Your task to perform on an android device: open app "NewsBreak: Local News & Alerts" (install if not already installed) Image 0: 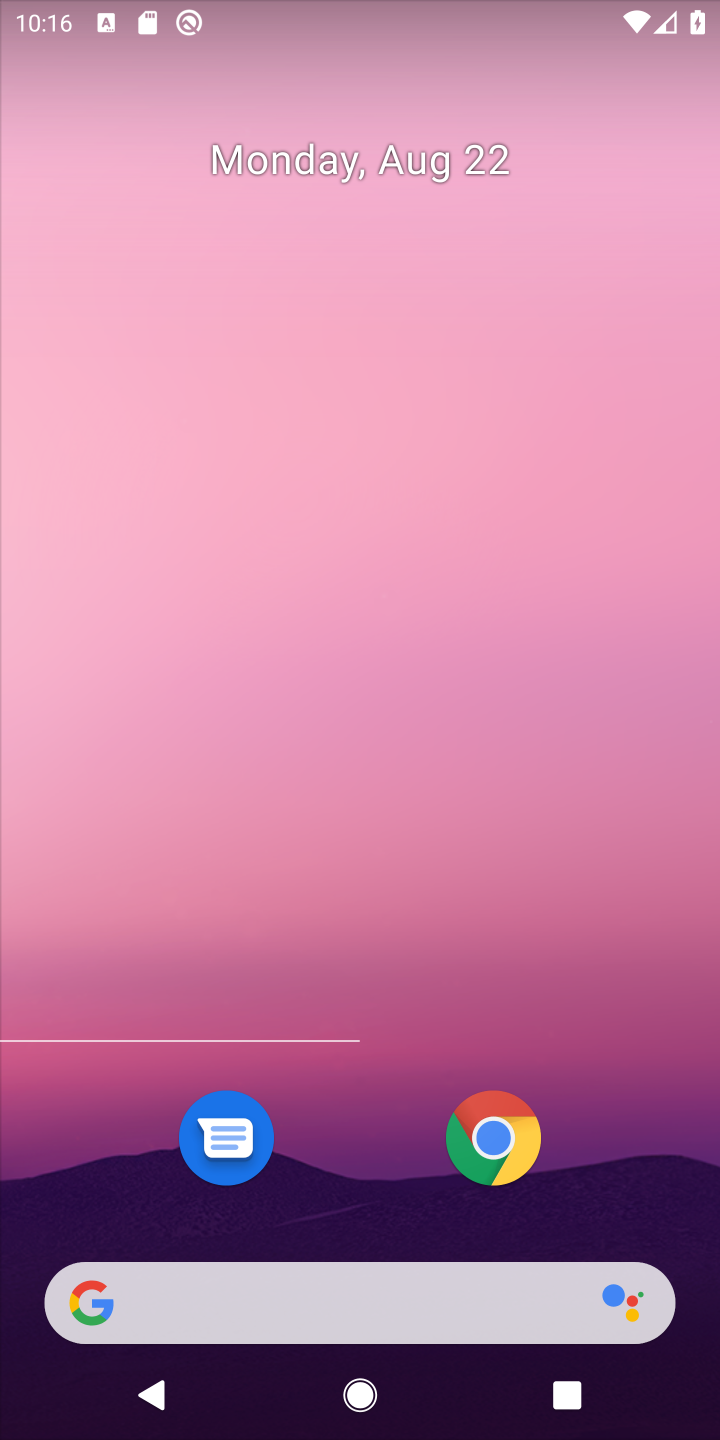
Step 0: press home button
Your task to perform on an android device: open app "NewsBreak: Local News & Alerts" (install if not already installed) Image 1: 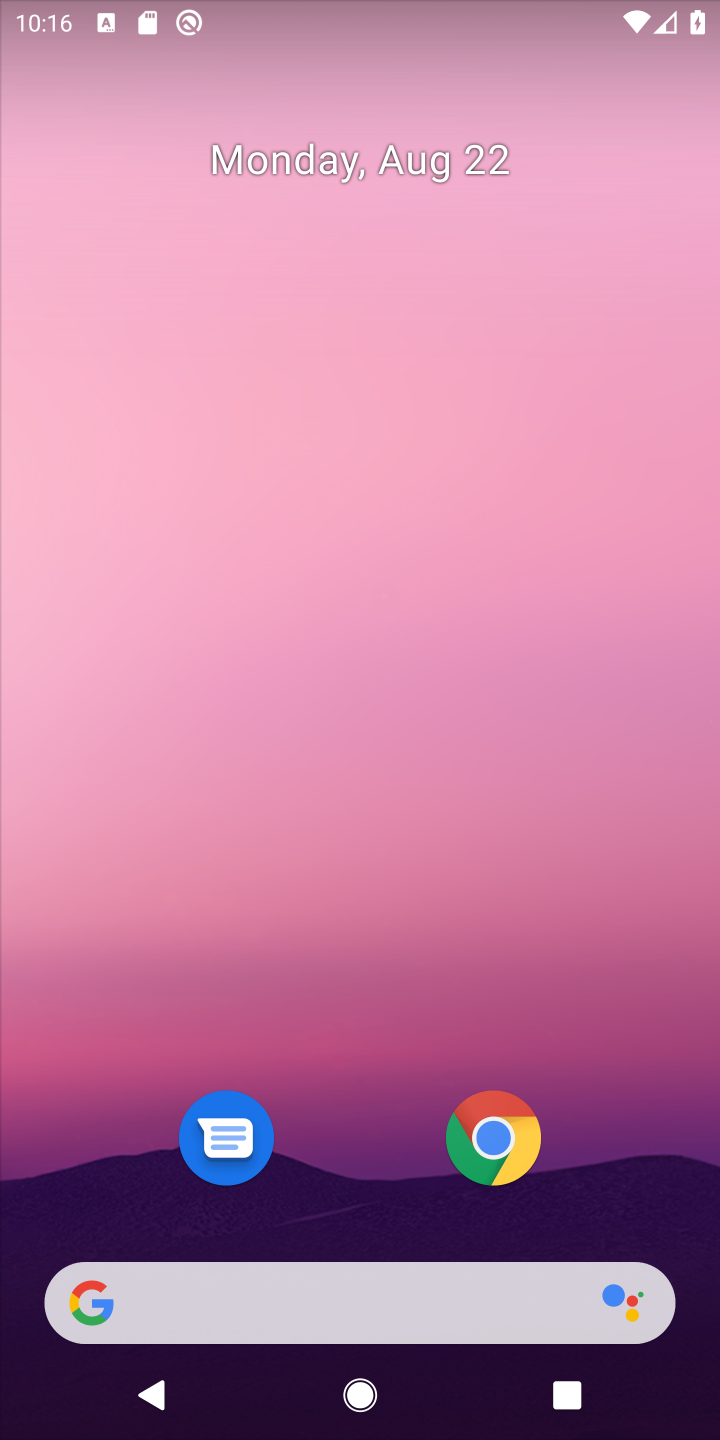
Step 1: press home button
Your task to perform on an android device: open app "NewsBreak: Local News & Alerts" (install if not already installed) Image 2: 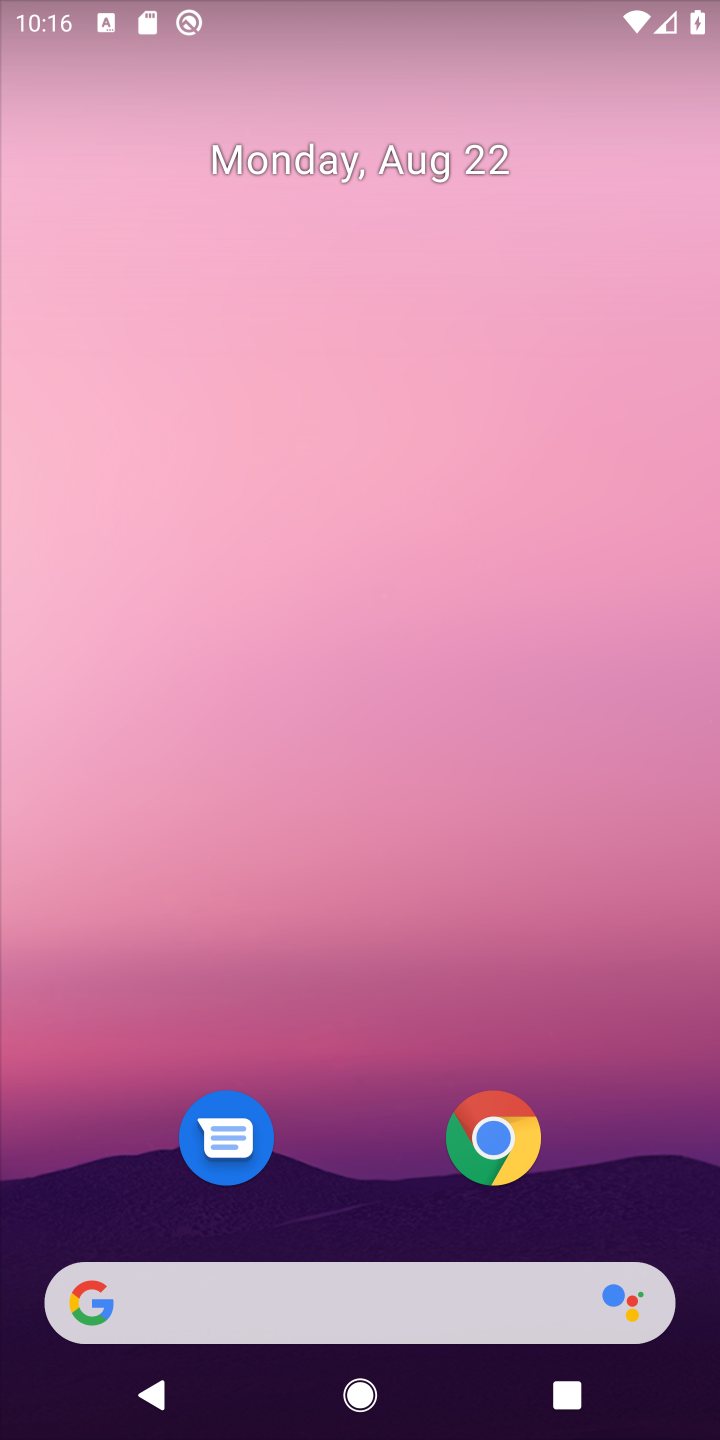
Step 2: drag from (368, 1239) to (423, 114)
Your task to perform on an android device: open app "NewsBreak: Local News & Alerts" (install if not already installed) Image 3: 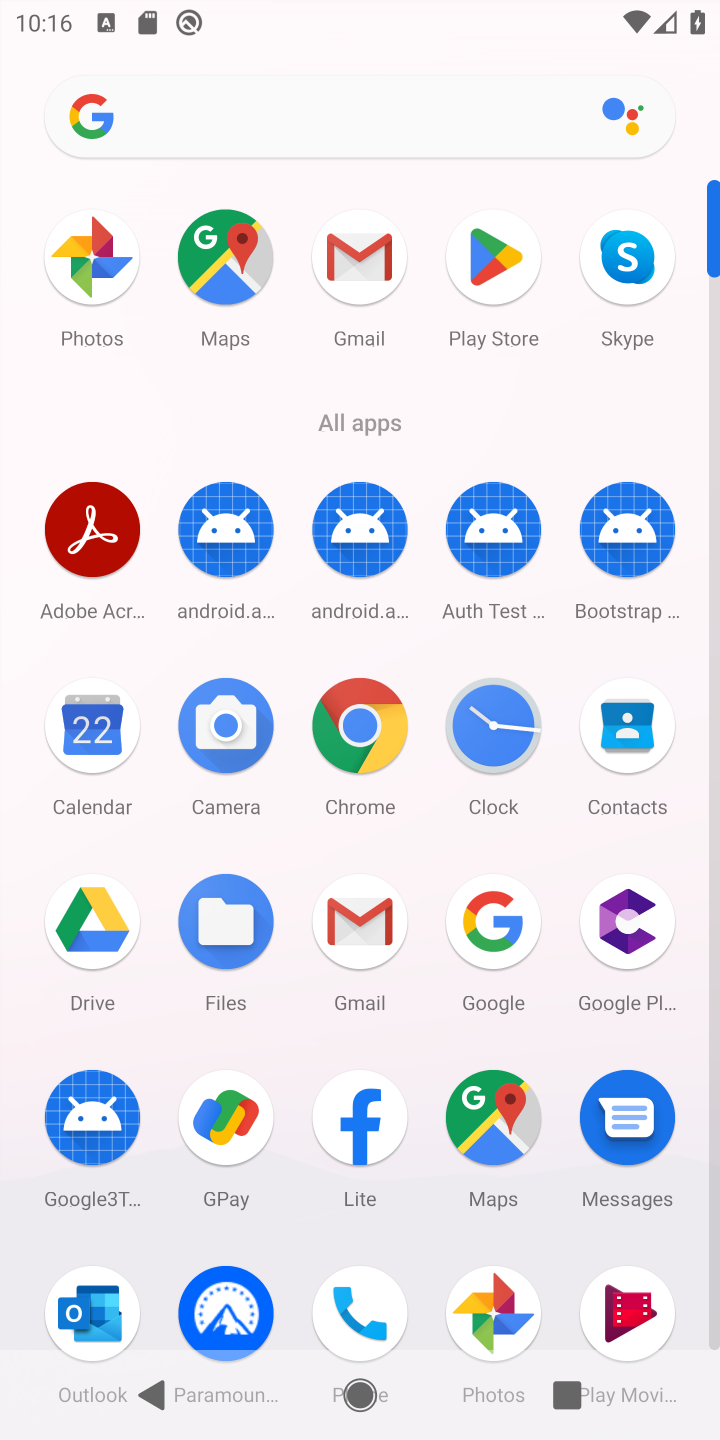
Step 3: click (485, 248)
Your task to perform on an android device: open app "NewsBreak: Local News & Alerts" (install if not already installed) Image 4: 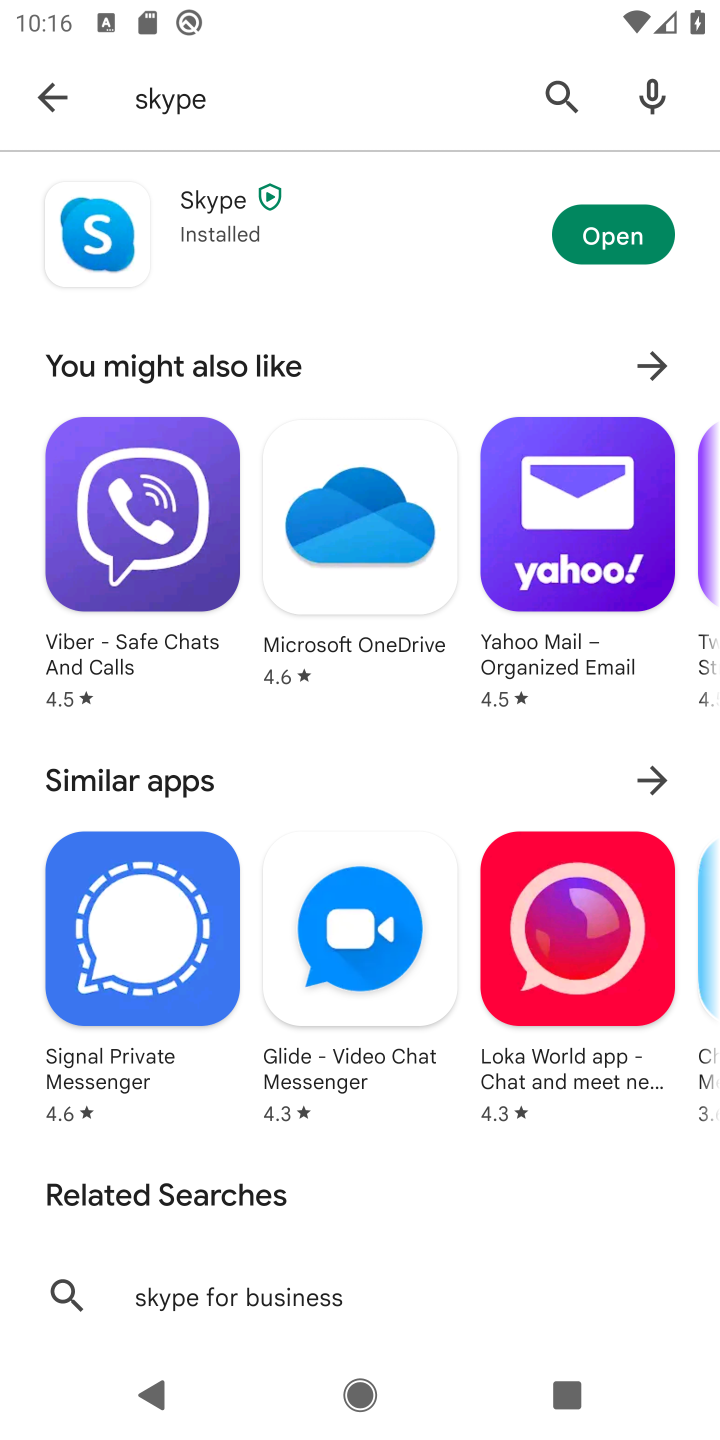
Step 4: click (561, 93)
Your task to perform on an android device: open app "NewsBreak: Local News & Alerts" (install if not already installed) Image 5: 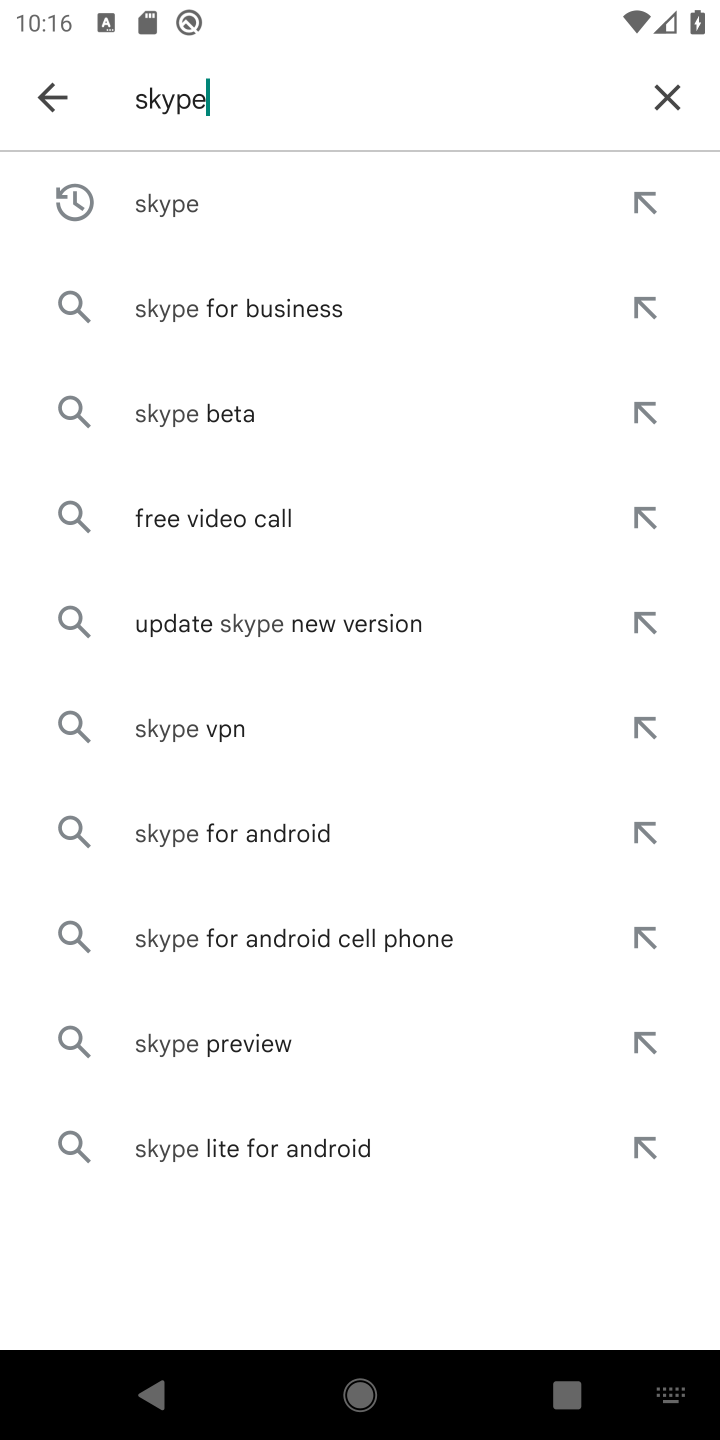
Step 5: click (673, 106)
Your task to perform on an android device: open app "NewsBreak: Local News & Alerts" (install if not already installed) Image 6: 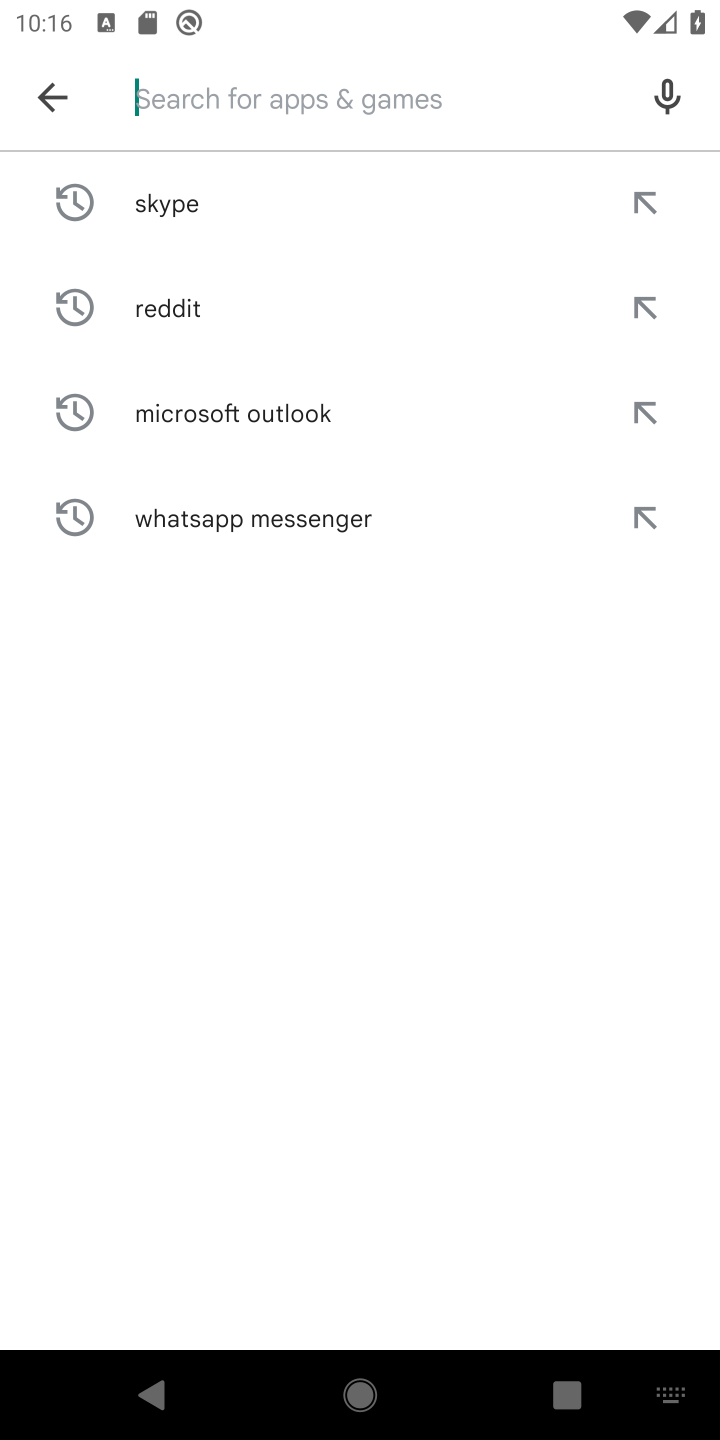
Step 6: type "NewsBreak: Local News & Alerts"
Your task to perform on an android device: open app "NewsBreak: Local News & Alerts" (install if not already installed) Image 7: 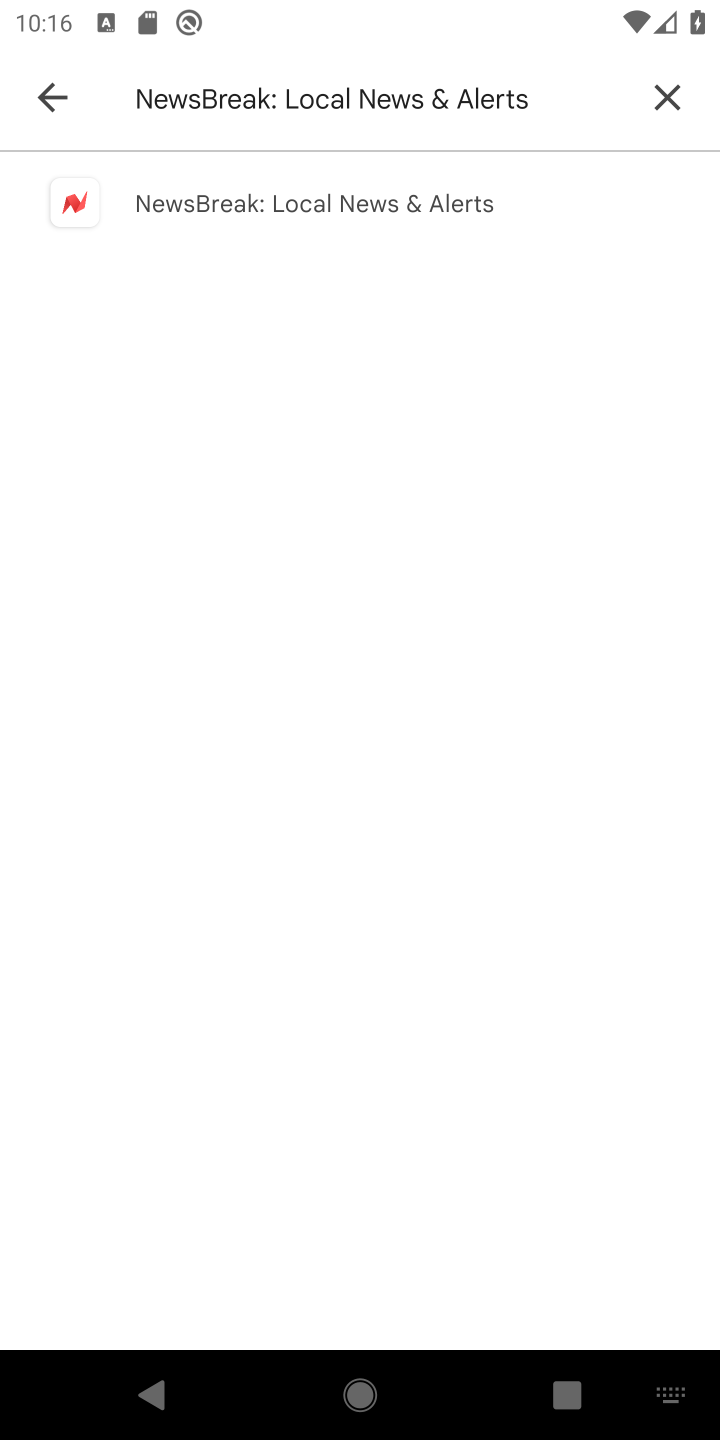
Step 7: click (113, 201)
Your task to perform on an android device: open app "NewsBreak: Local News & Alerts" (install if not already installed) Image 8: 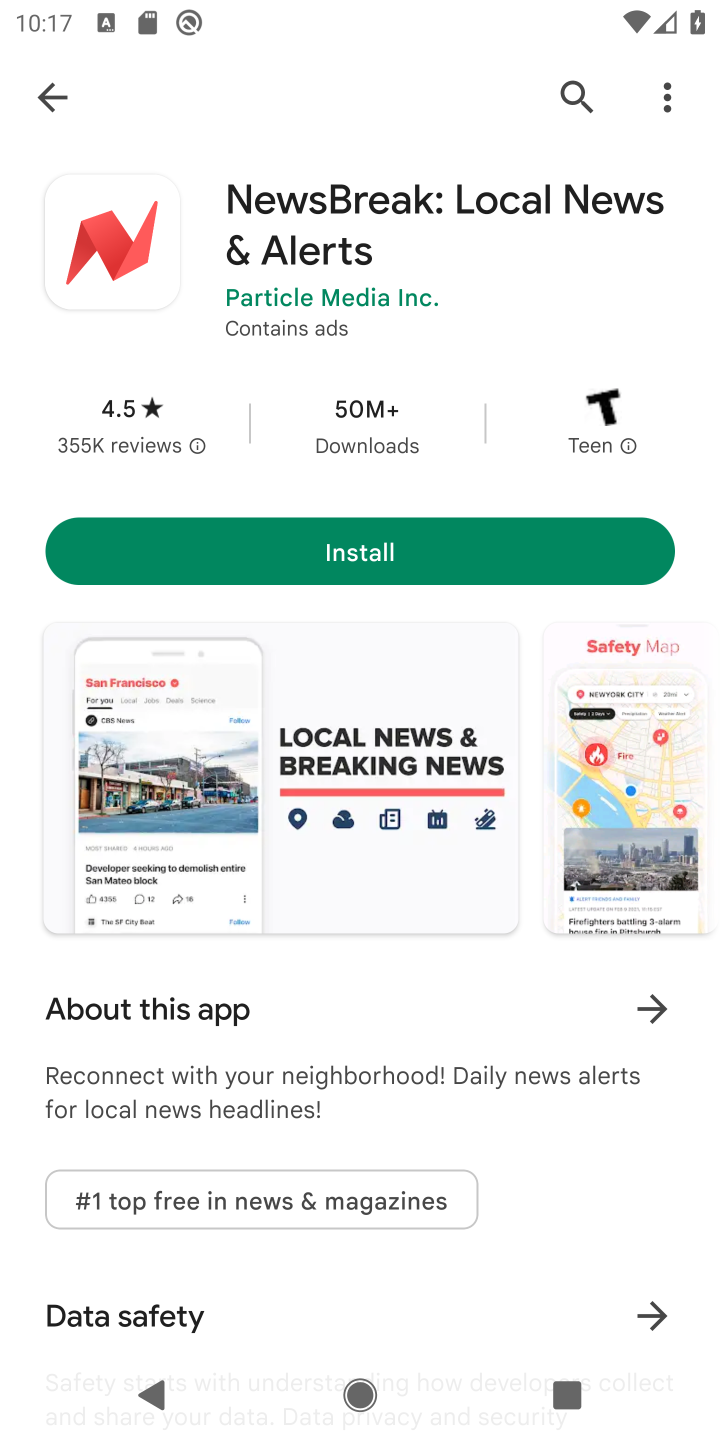
Step 8: click (364, 544)
Your task to perform on an android device: open app "NewsBreak: Local News & Alerts" (install if not already installed) Image 9: 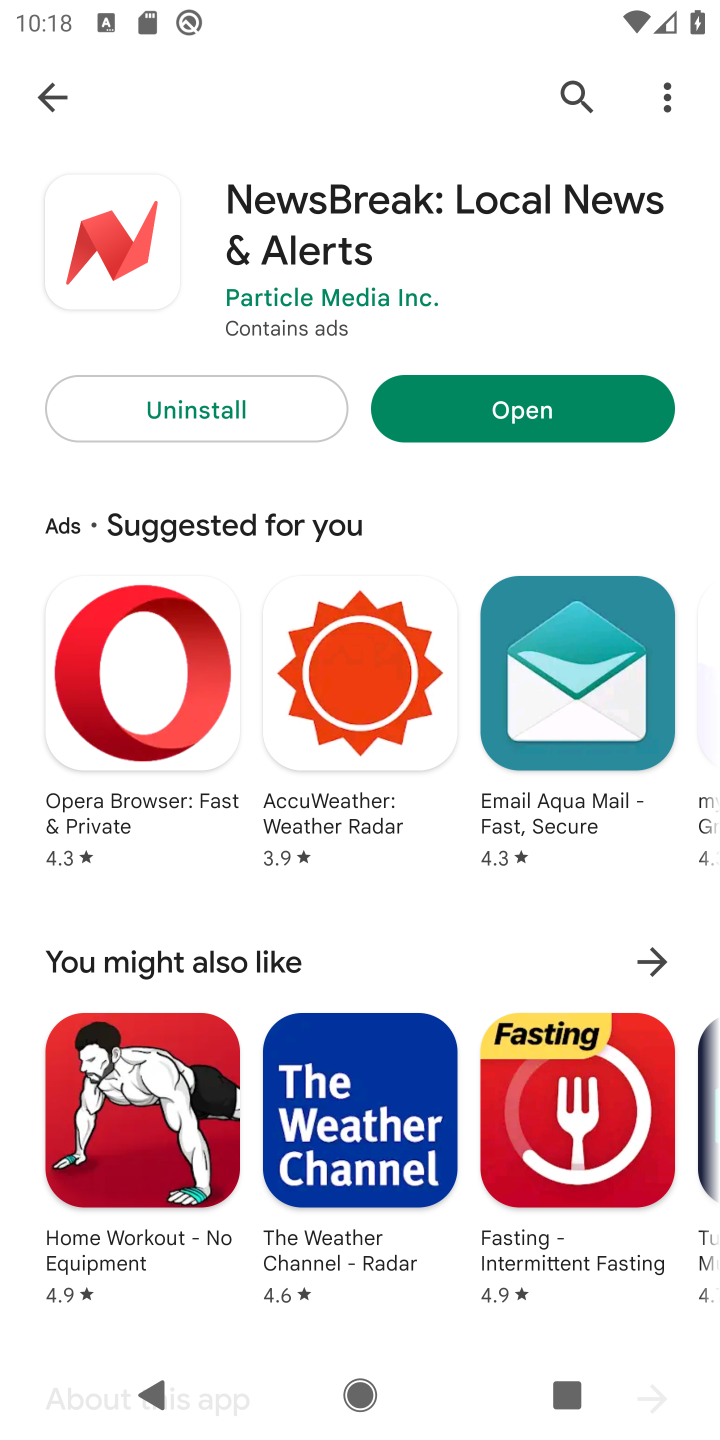
Step 9: click (529, 407)
Your task to perform on an android device: open app "NewsBreak: Local News & Alerts" (install if not already installed) Image 10: 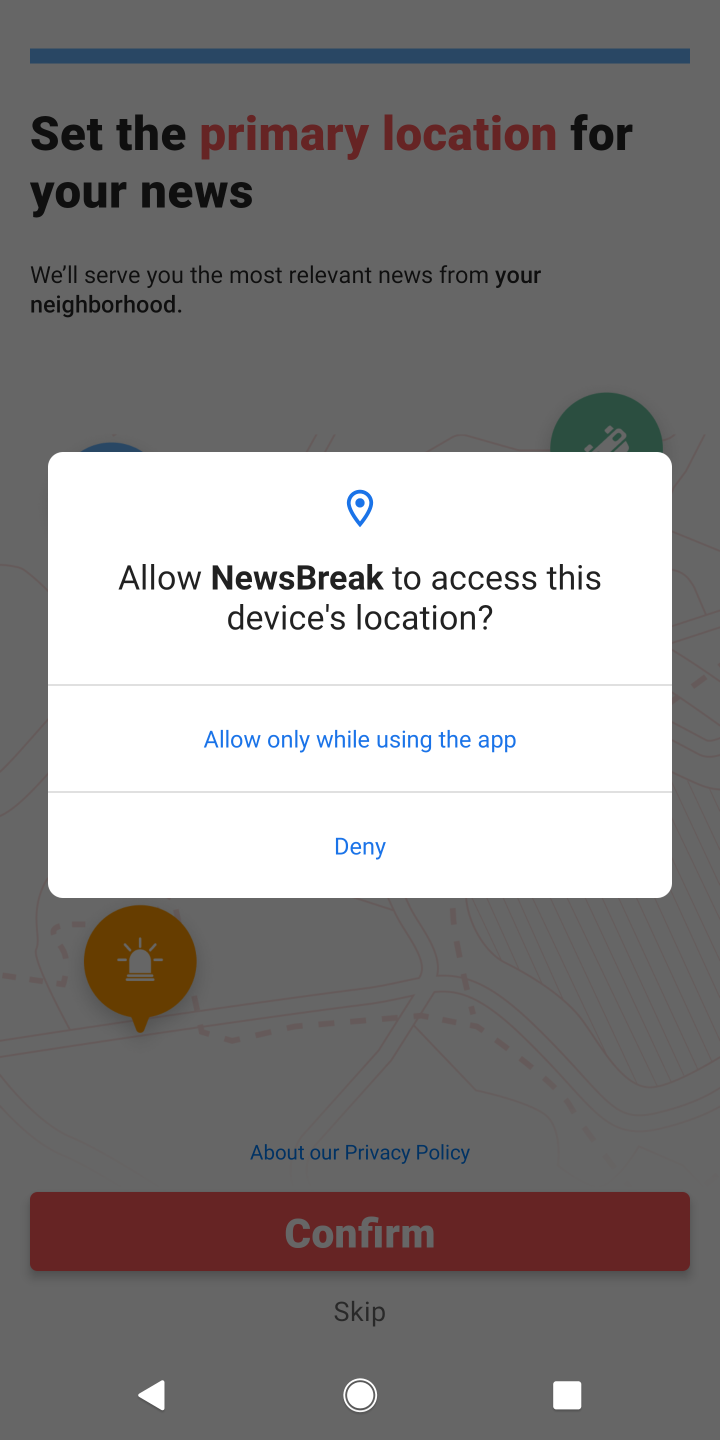
Step 10: click (380, 735)
Your task to perform on an android device: open app "NewsBreak: Local News & Alerts" (install if not already installed) Image 11: 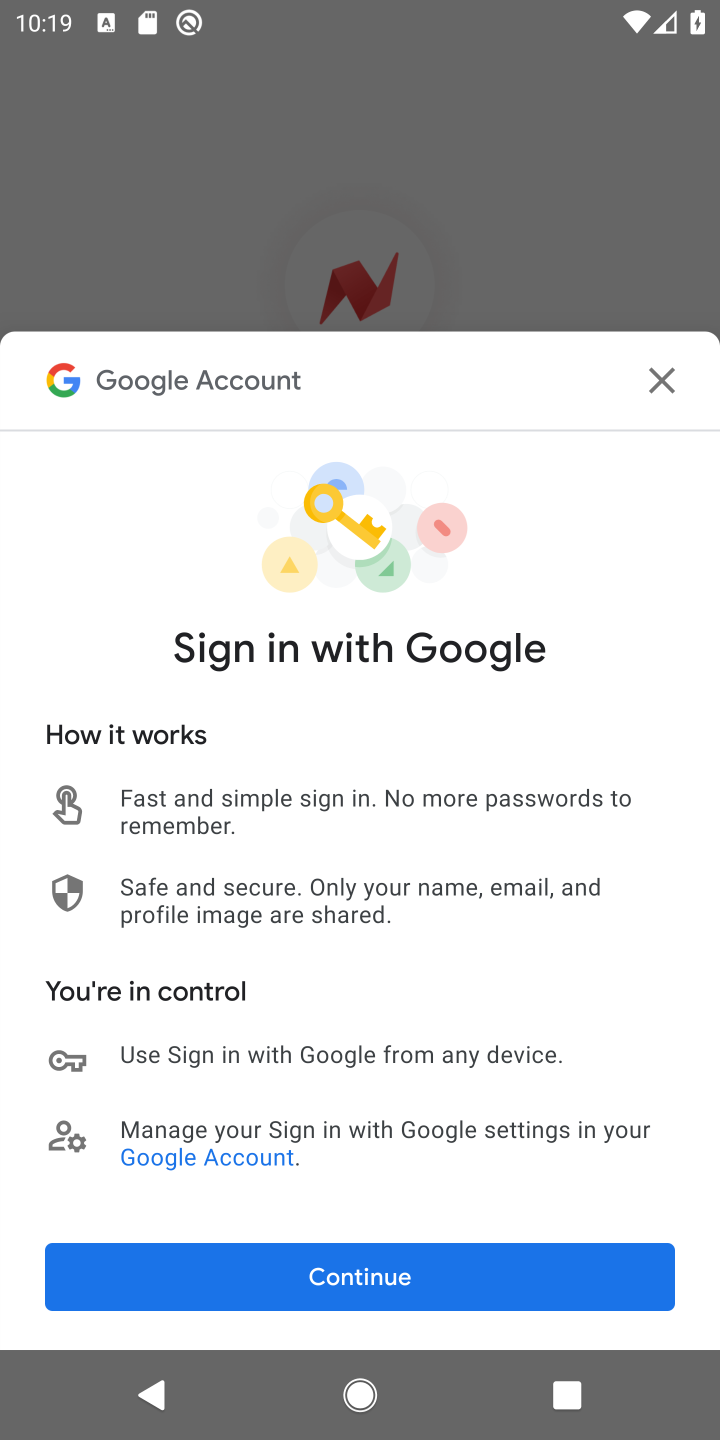
Step 11: click (364, 1273)
Your task to perform on an android device: open app "NewsBreak: Local News & Alerts" (install if not already installed) Image 12: 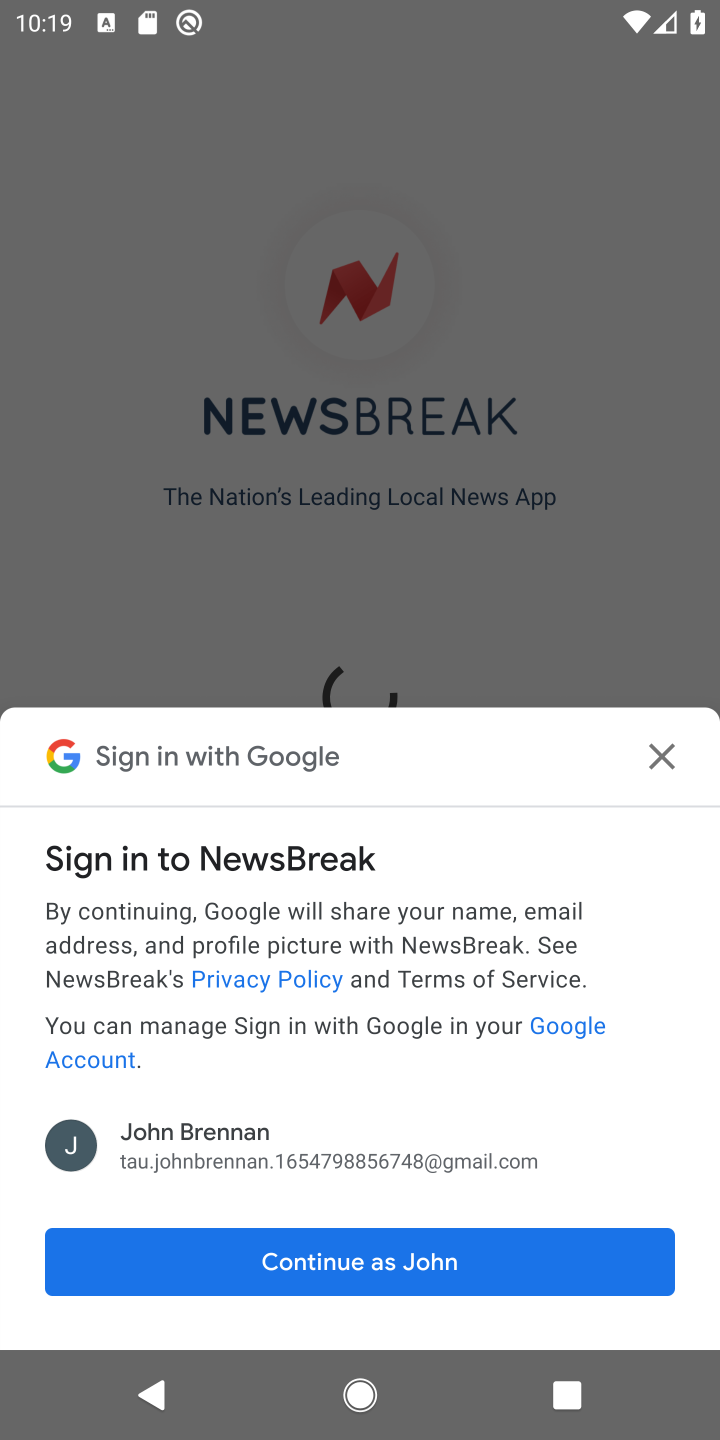
Step 12: click (378, 1253)
Your task to perform on an android device: open app "NewsBreak: Local News & Alerts" (install if not already installed) Image 13: 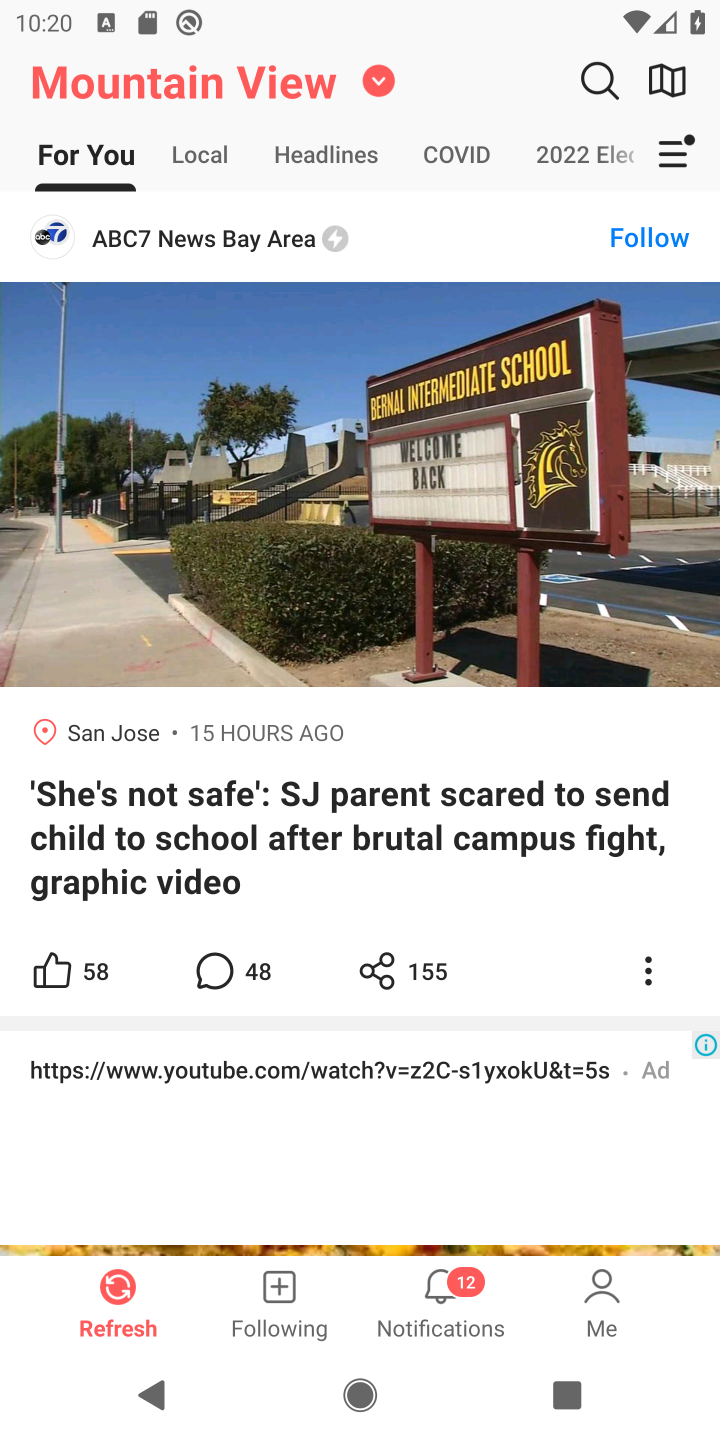
Step 13: task complete